Your task to perform on an android device: Open internet settings Image 0: 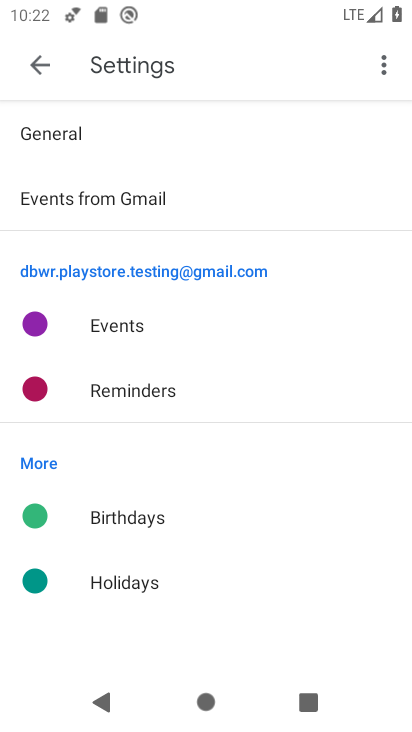
Step 0: press home button
Your task to perform on an android device: Open internet settings Image 1: 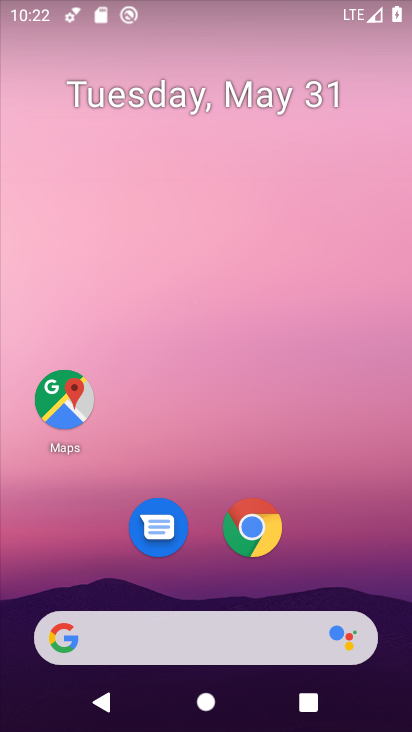
Step 1: drag from (325, 590) to (323, 8)
Your task to perform on an android device: Open internet settings Image 2: 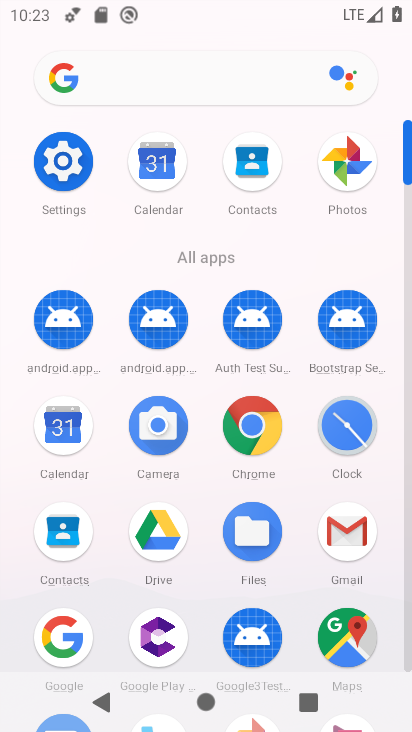
Step 2: click (52, 160)
Your task to perform on an android device: Open internet settings Image 3: 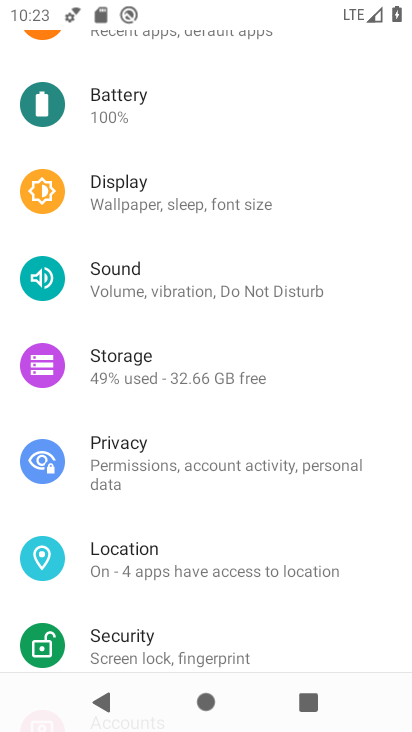
Step 3: drag from (331, 158) to (357, 614)
Your task to perform on an android device: Open internet settings Image 4: 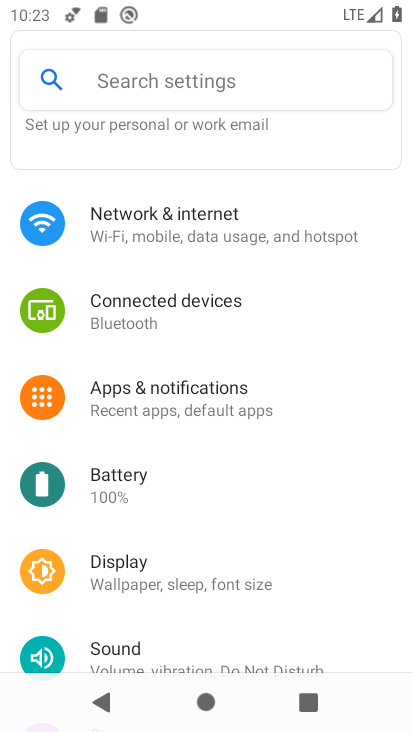
Step 4: click (154, 231)
Your task to perform on an android device: Open internet settings Image 5: 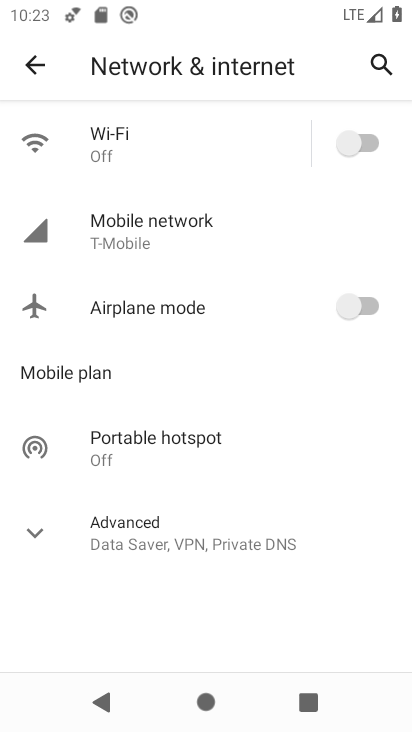
Step 5: task complete